Your task to perform on an android device: install app "Microsoft Outlook" Image 0: 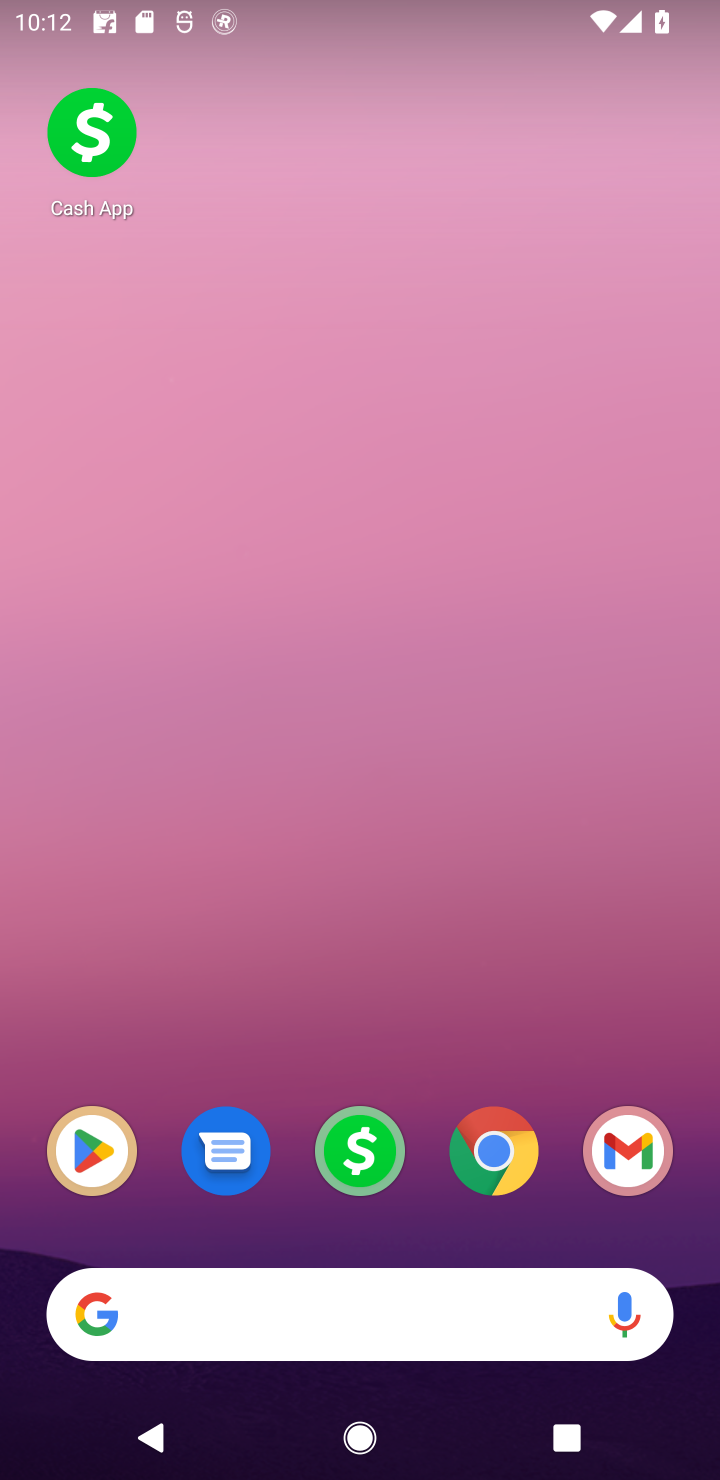
Step 0: click (57, 1129)
Your task to perform on an android device: install app "Microsoft Outlook" Image 1: 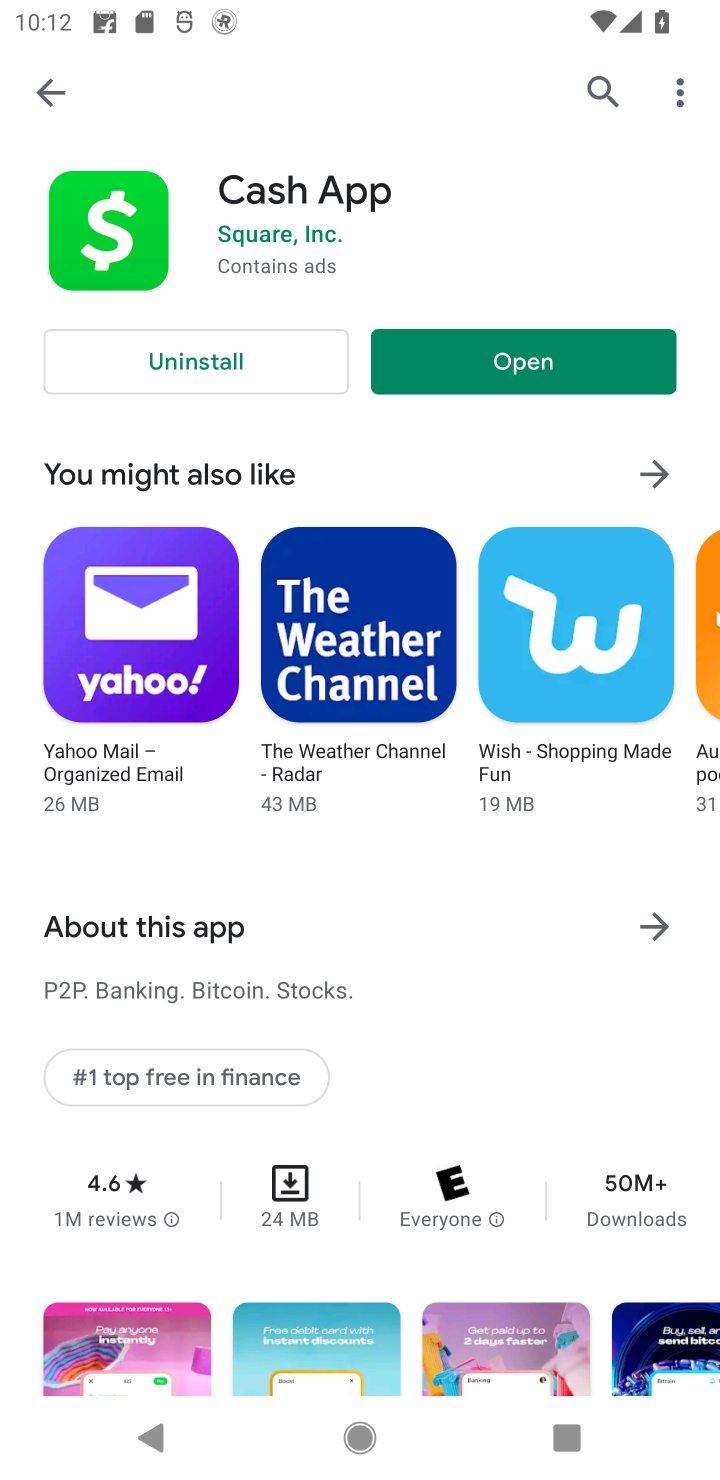
Step 1: click (613, 76)
Your task to perform on an android device: install app "Microsoft Outlook" Image 2: 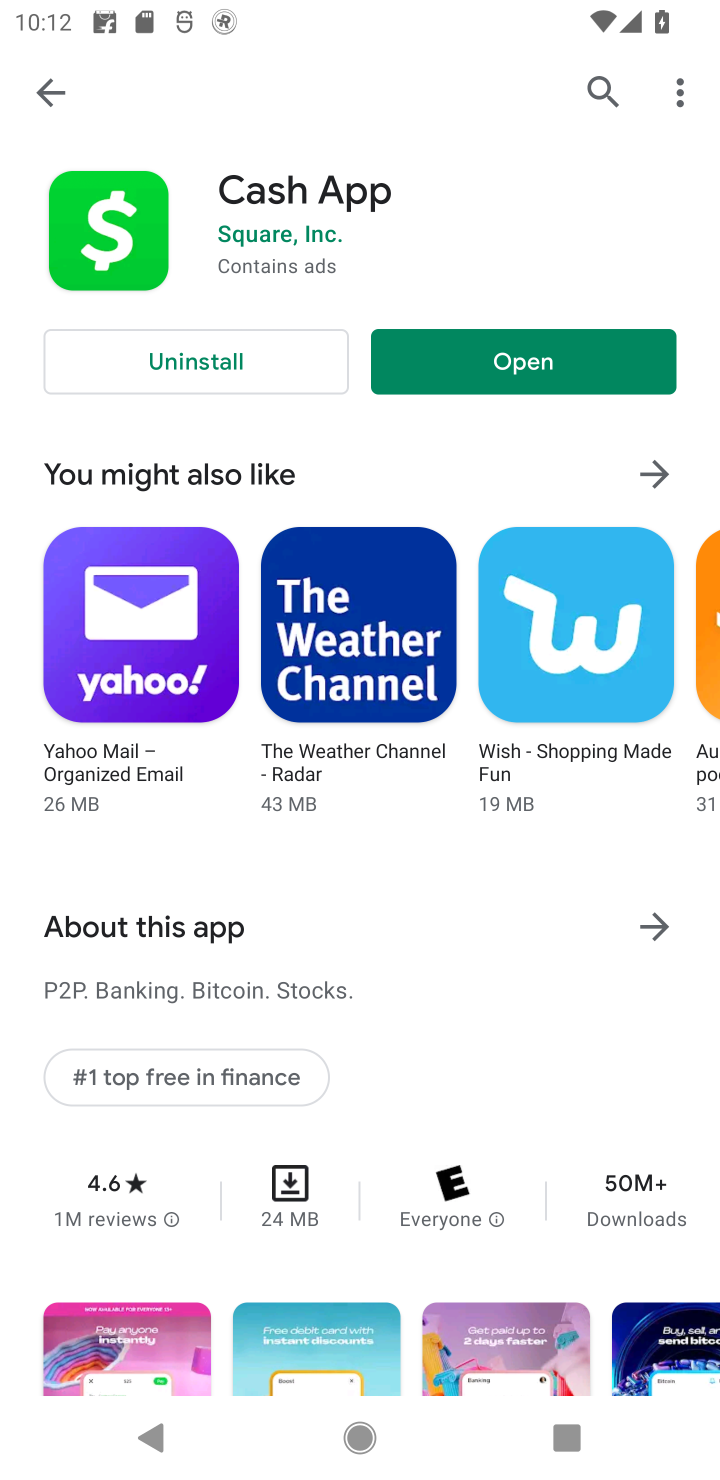
Step 2: click (601, 97)
Your task to perform on an android device: install app "Microsoft Outlook" Image 3: 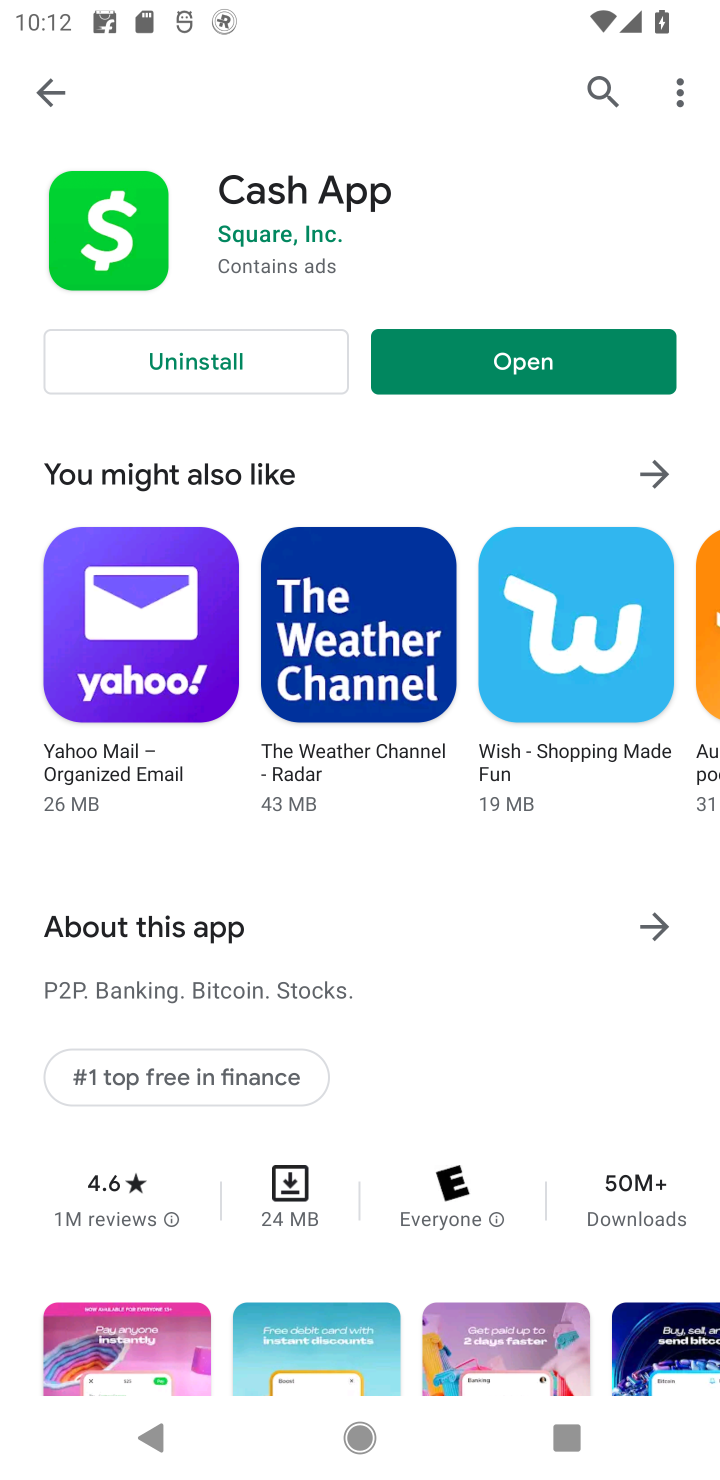
Step 3: click (603, 95)
Your task to perform on an android device: install app "Microsoft Outlook" Image 4: 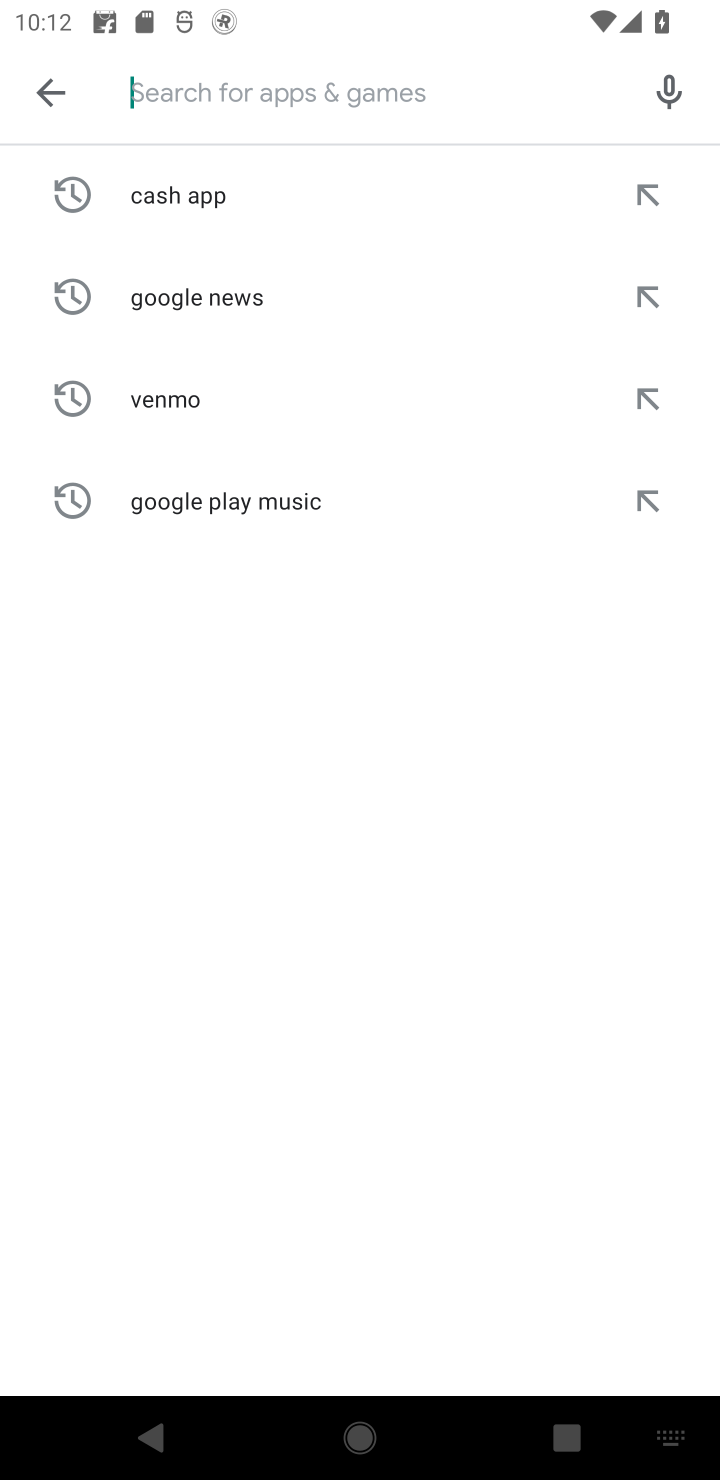
Step 4: type "Microsoft Outlook"
Your task to perform on an android device: install app "Microsoft Outlook" Image 5: 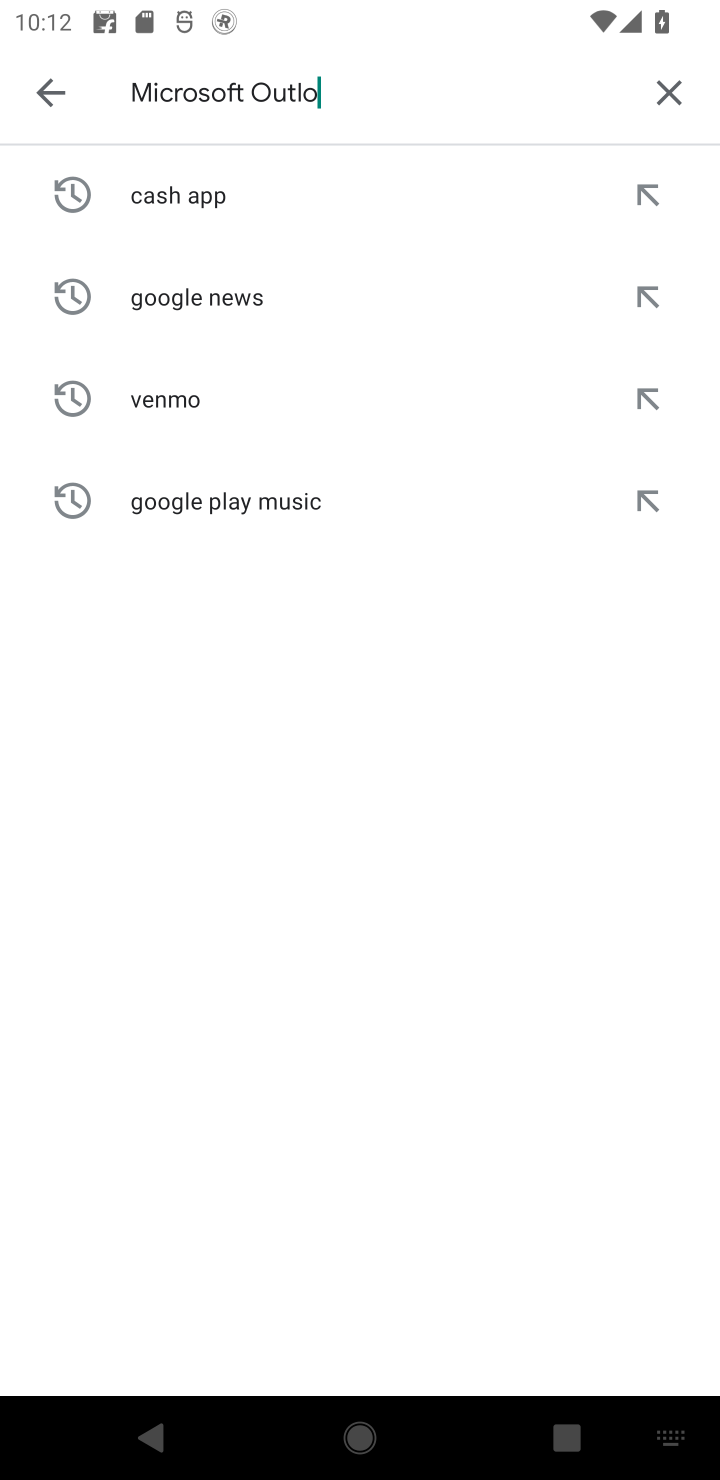
Step 5: type ""
Your task to perform on an android device: install app "Microsoft Outlook" Image 6: 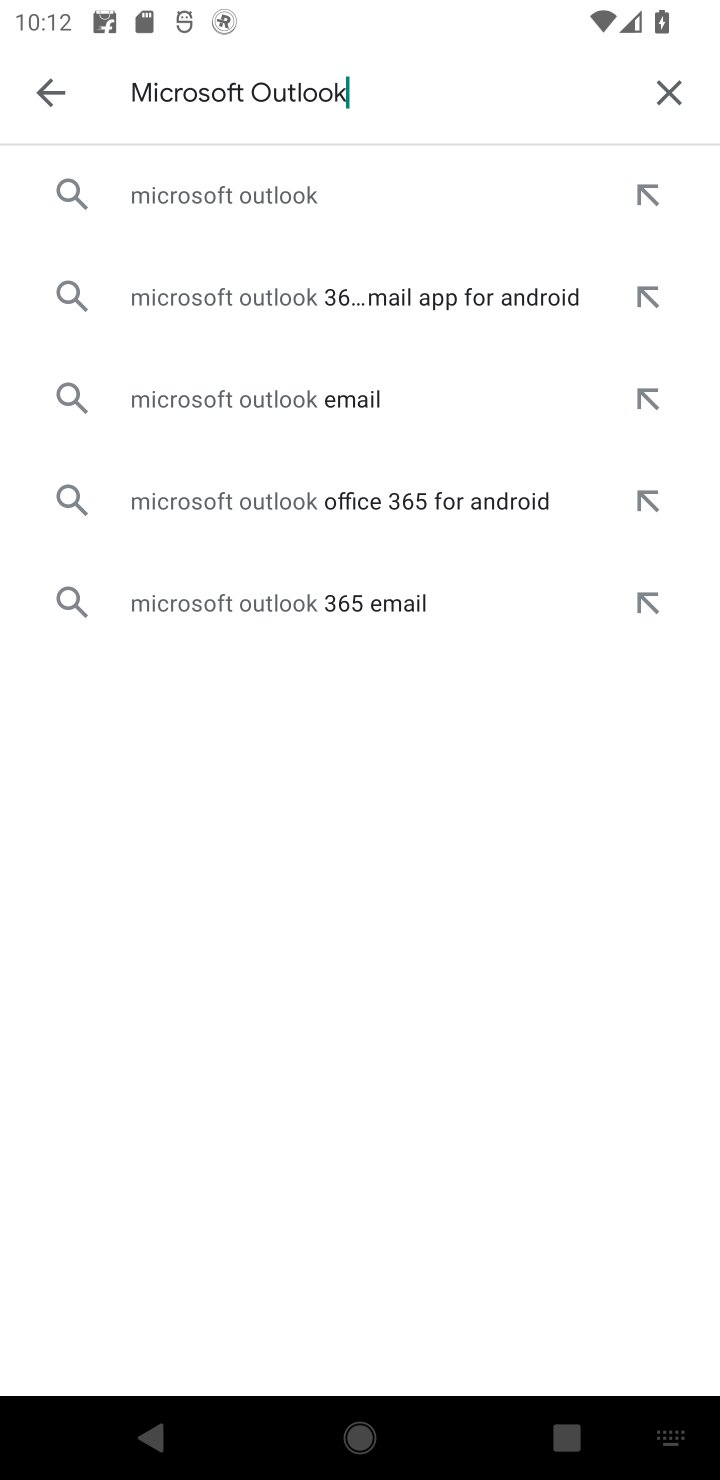
Step 6: click (308, 190)
Your task to perform on an android device: install app "Microsoft Outlook" Image 7: 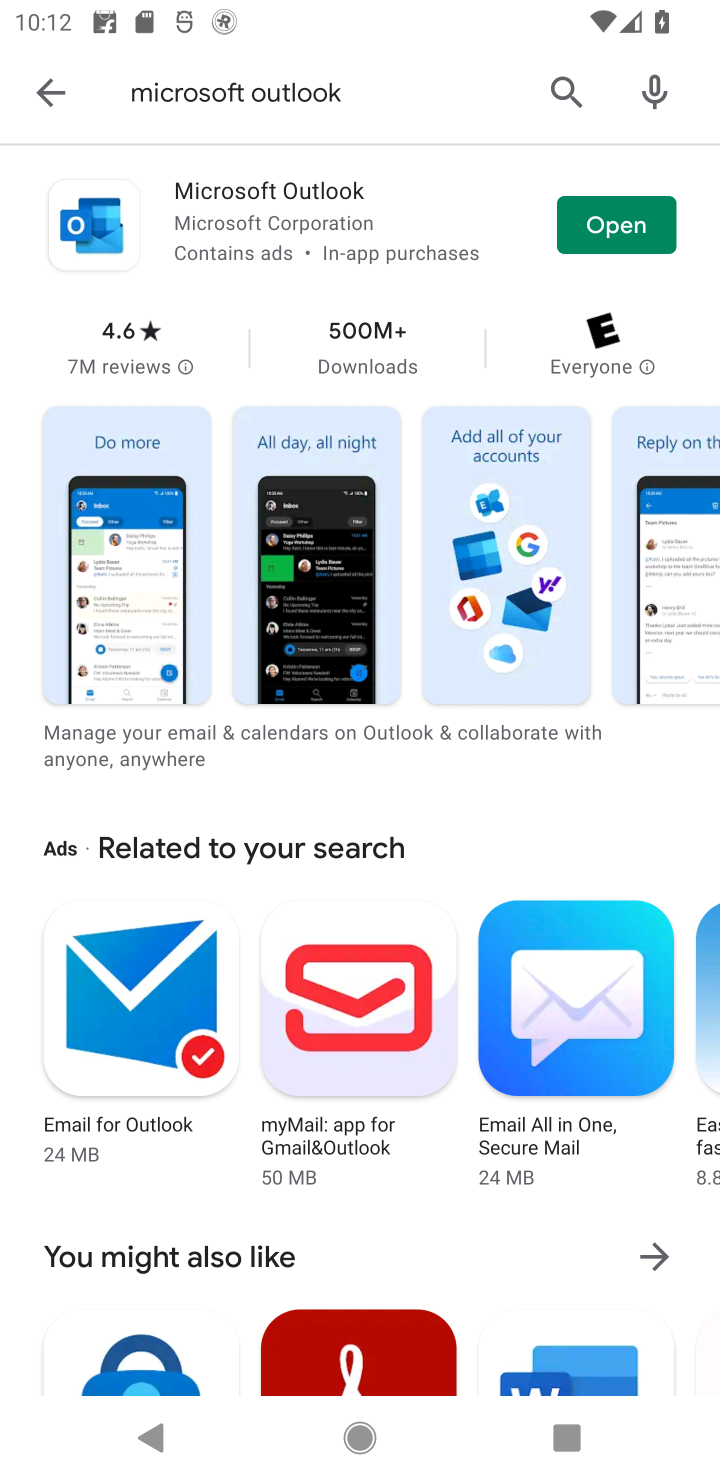
Step 7: task complete